Your task to perform on an android device: See recent photos Image 0: 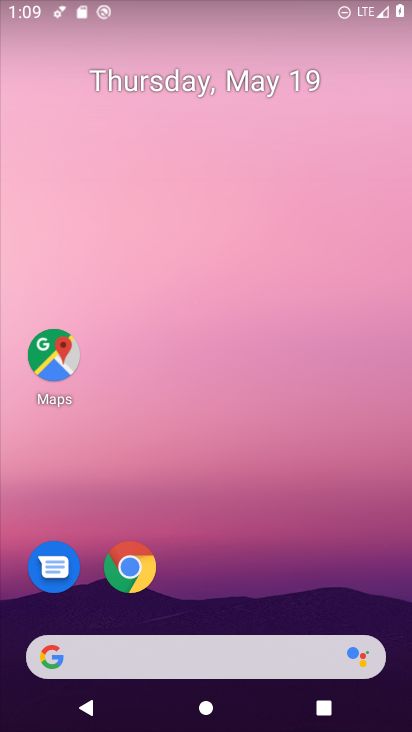
Step 0: drag from (286, 571) to (239, 56)
Your task to perform on an android device: See recent photos Image 1: 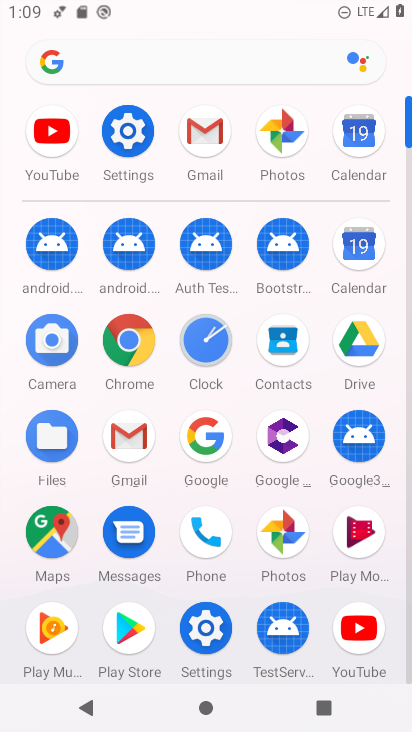
Step 1: click (289, 130)
Your task to perform on an android device: See recent photos Image 2: 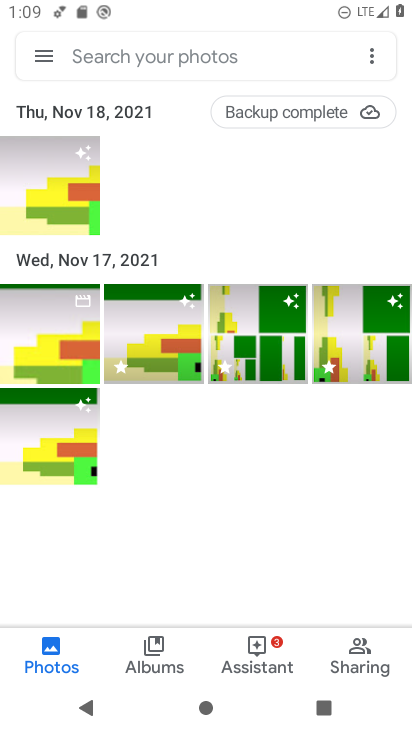
Step 2: task complete